Your task to perform on an android device: Open battery settings Image 0: 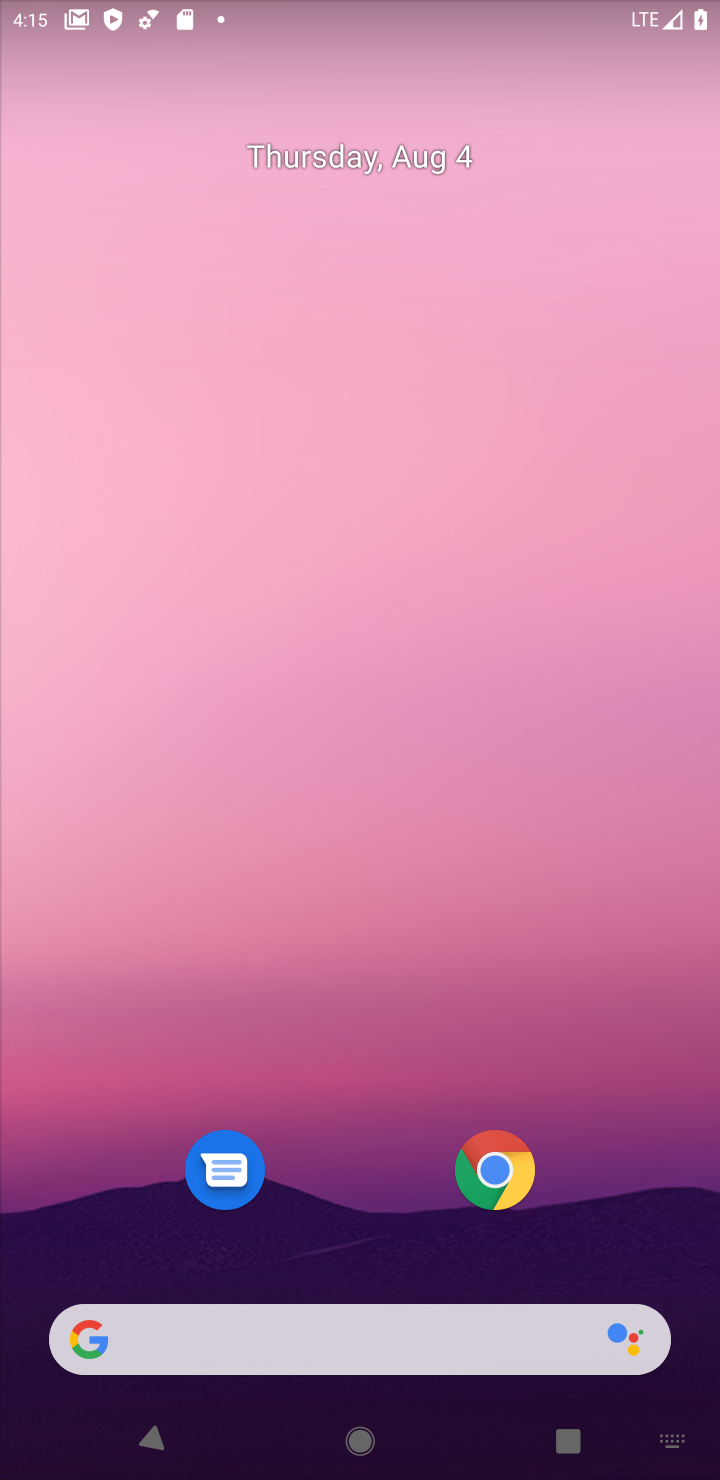
Step 0: drag from (665, 1218) to (642, 241)
Your task to perform on an android device: Open battery settings Image 1: 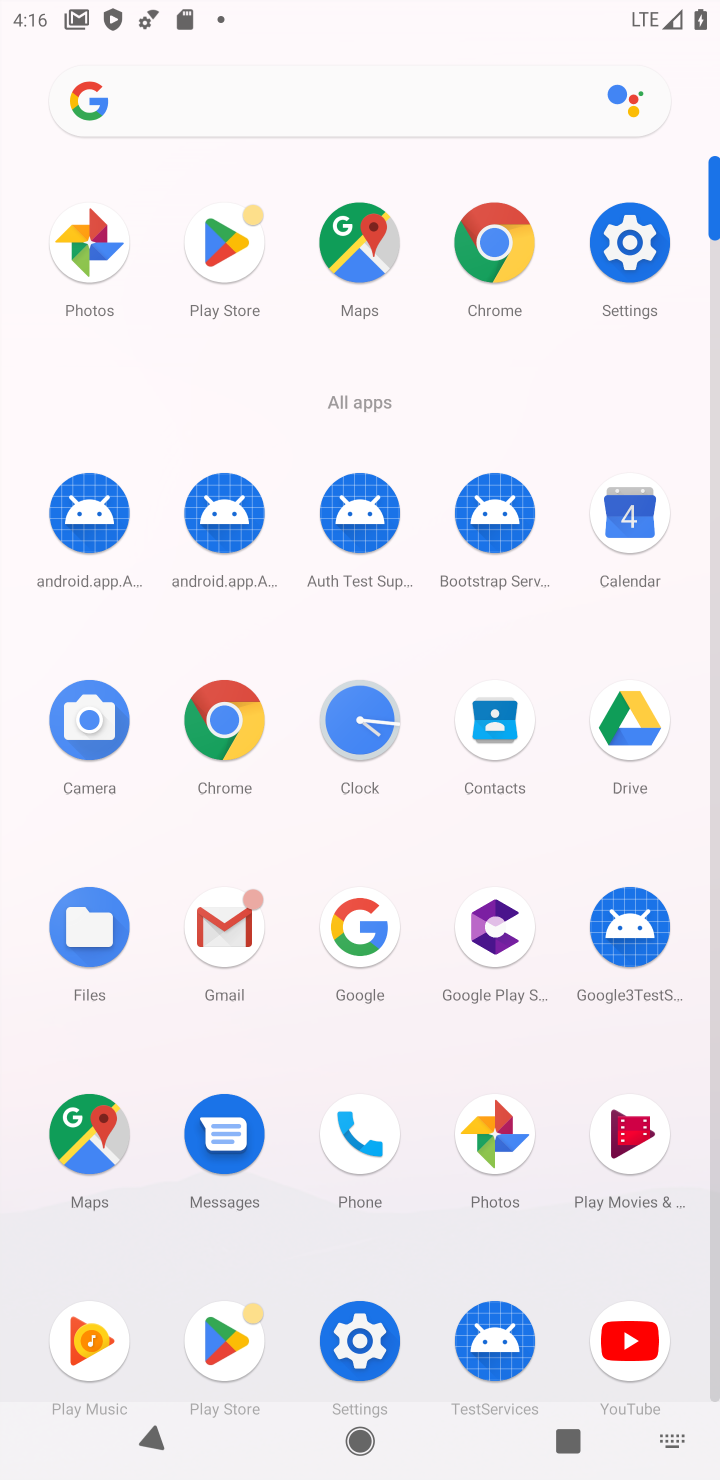
Step 1: click (645, 277)
Your task to perform on an android device: Open battery settings Image 2: 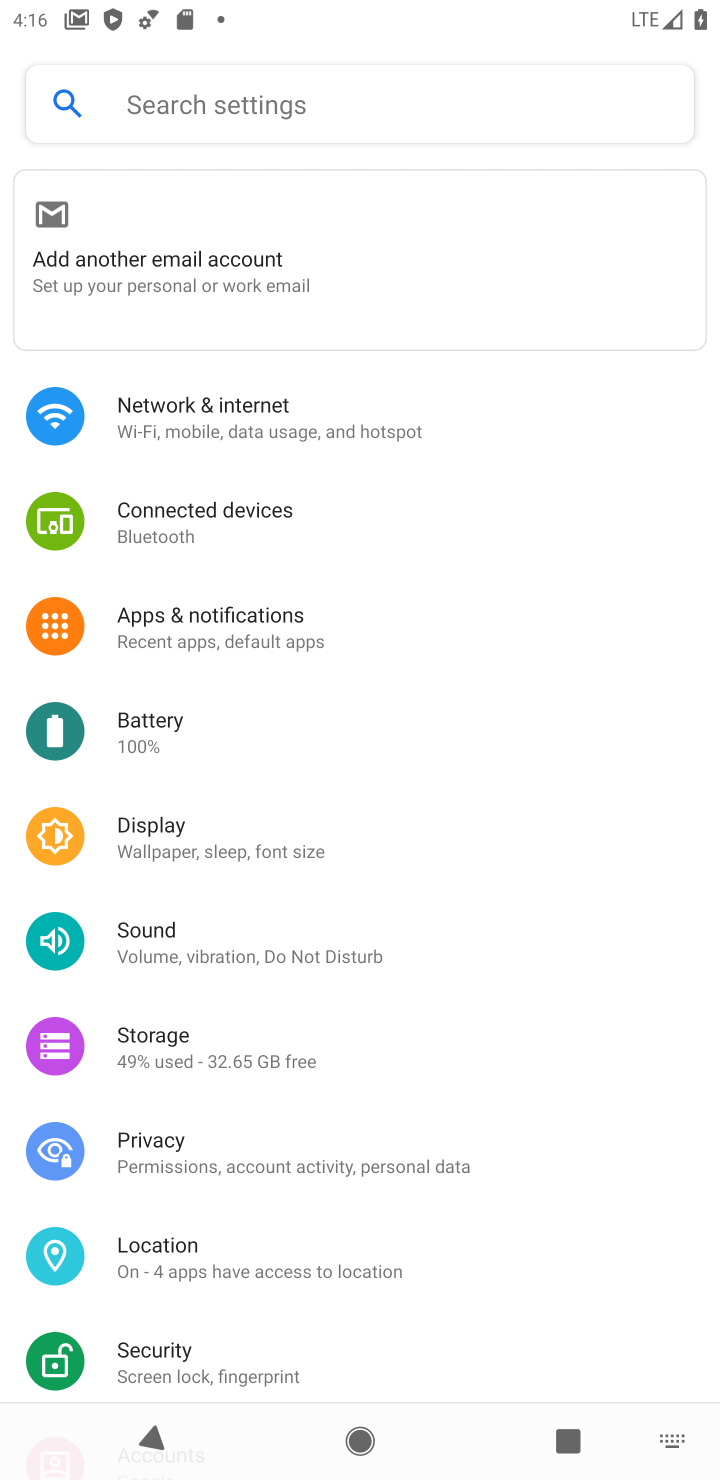
Step 2: click (314, 729)
Your task to perform on an android device: Open battery settings Image 3: 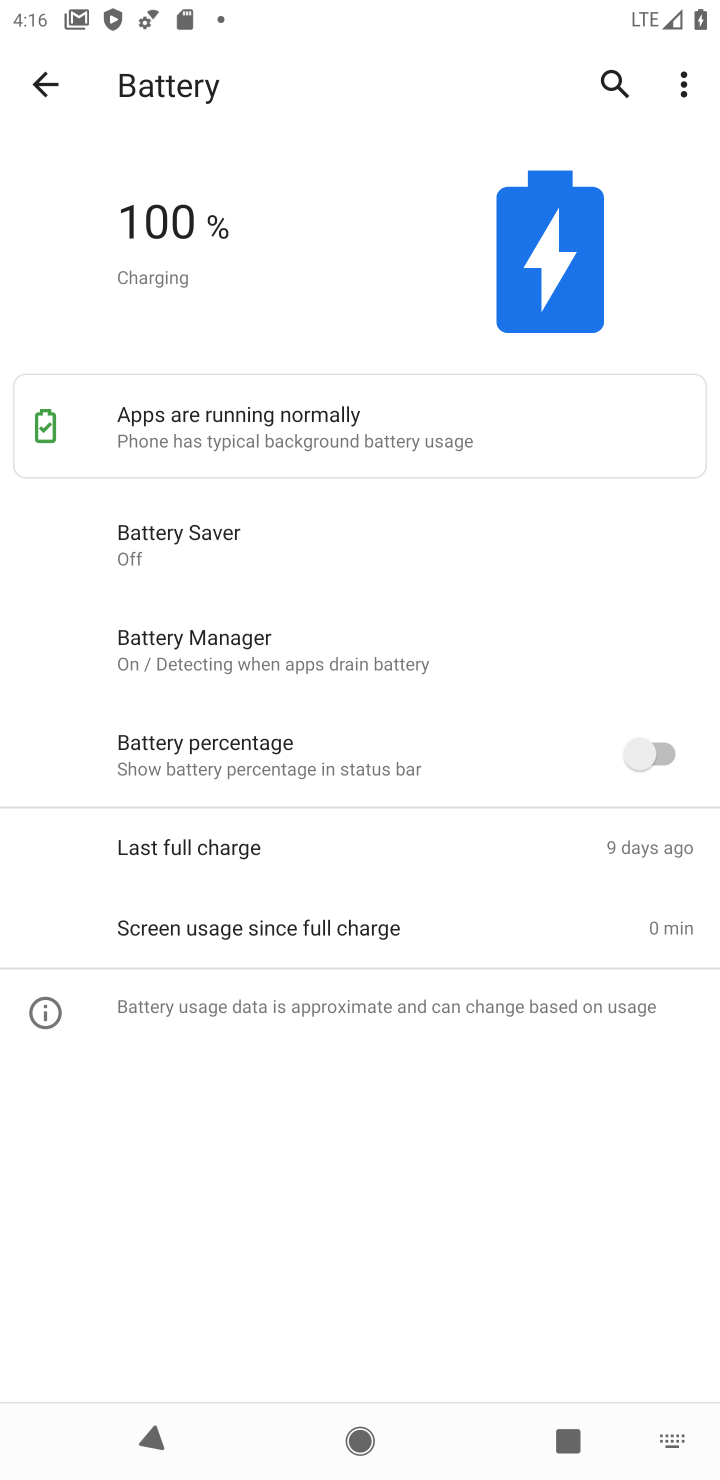
Step 3: task complete